Your task to perform on an android device: choose inbox layout in the gmail app Image 0: 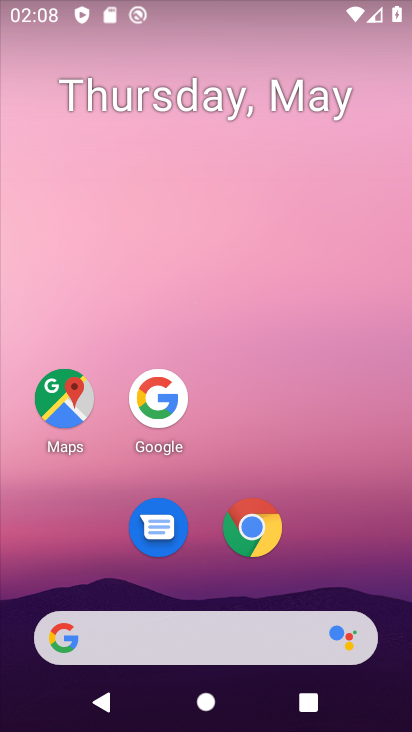
Step 0: drag from (191, 544) to (229, 254)
Your task to perform on an android device: choose inbox layout in the gmail app Image 1: 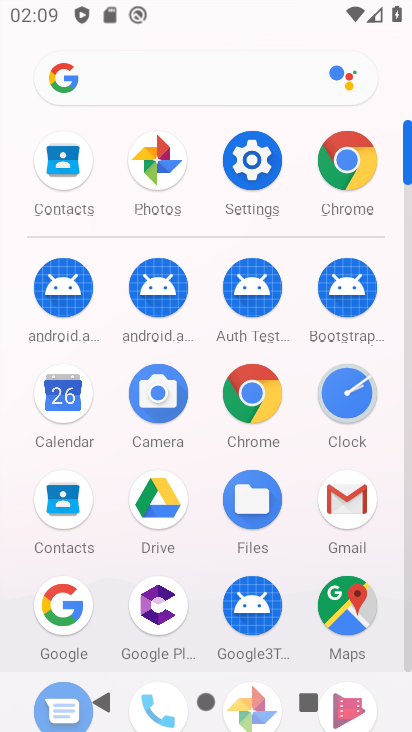
Step 1: click (358, 496)
Your task to perform on an android device: choose inbox layout in the gmail app Image 2: 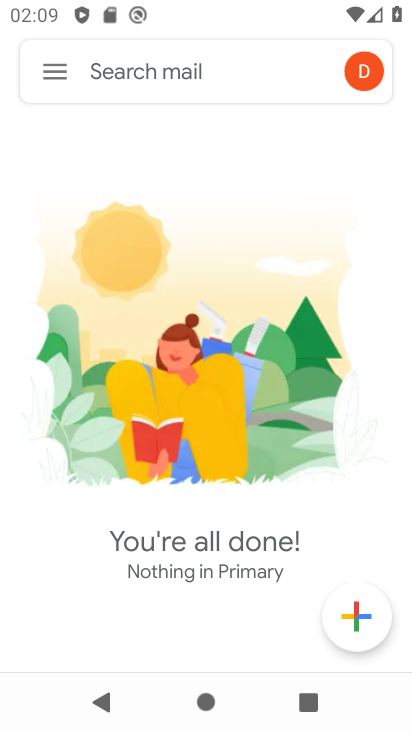
Step 2: click (44, 68)
Your task to perform on an android device: choose inbox layout in the gmail app Image 3: 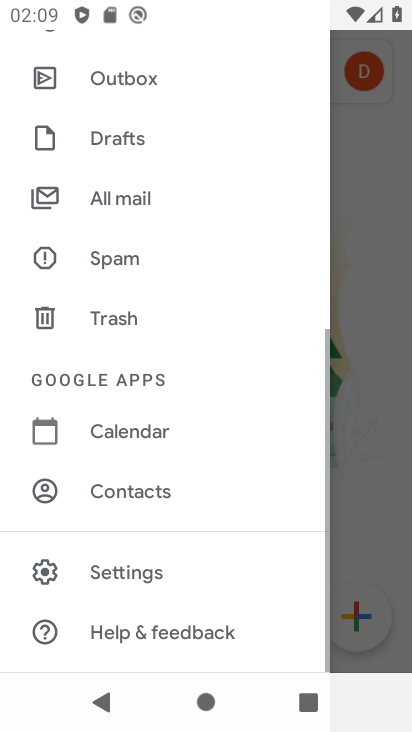
Step 3: drag from (134, 129) to (175, 610)
Your task to perform on an android device: choose inbox layout in the gmail app Image 4: 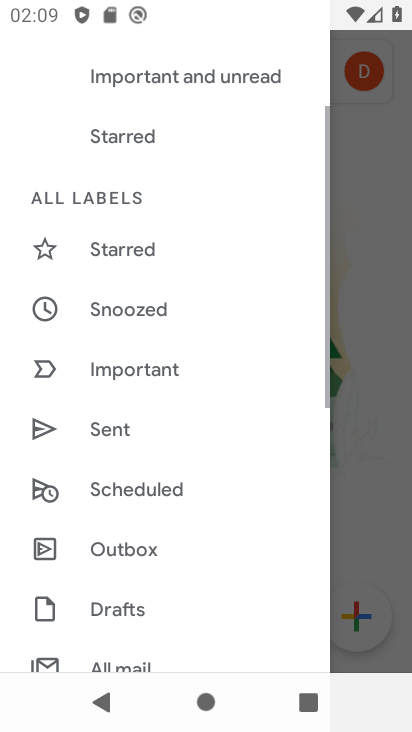
Step 4: drag from (149, 265) to (256, 716)
Your task to perform on an android device: choose inbox layout in the gmail app Image 5: 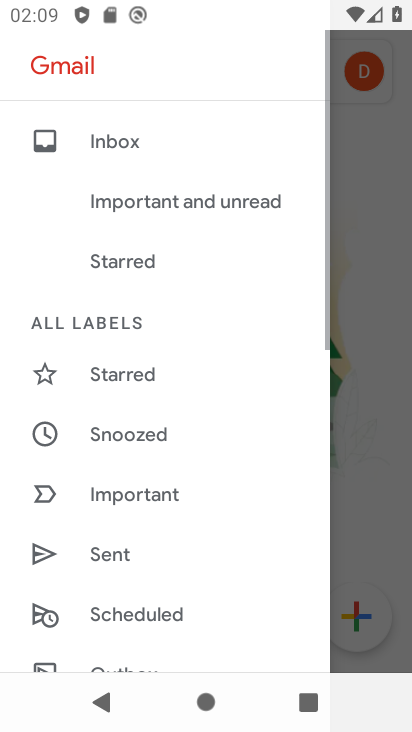
Step 5: click (131, 148)
Your task to perform on an android device: choose inbox layout in the gmail app Image 6: 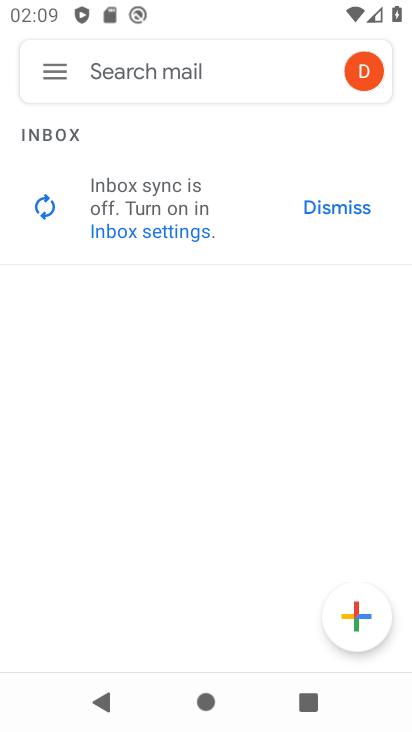
Step 6: task complete